Your task to perform on an android device: Open internet settings Image 0: 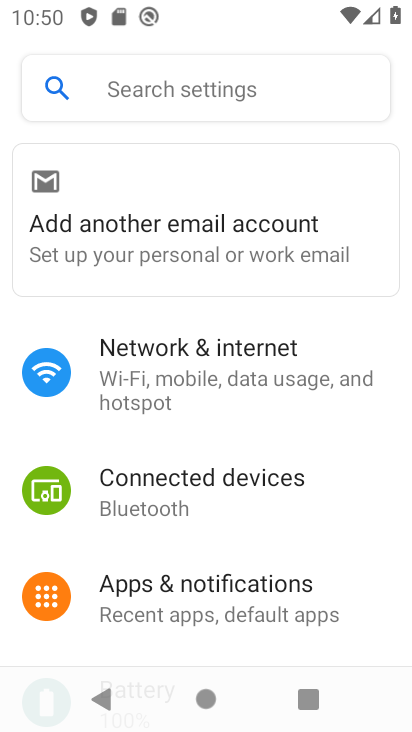
Step 0: click (295, 374)
Your task to perform on an android device: Open internet settings Image 1: 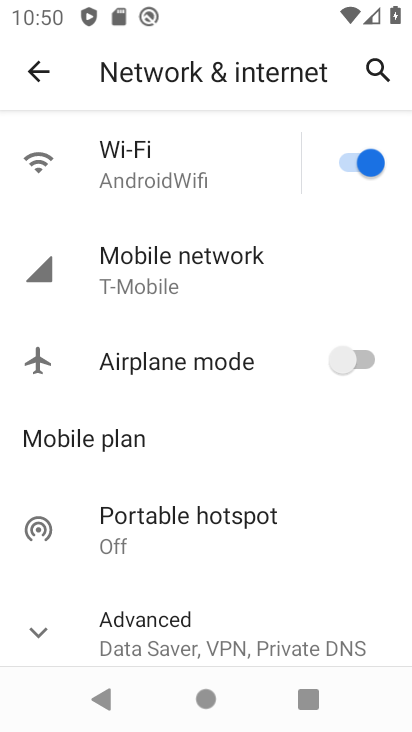
Step 1: click (168, 257)
Your task to perform on an android device: Open internet settings Image 2: 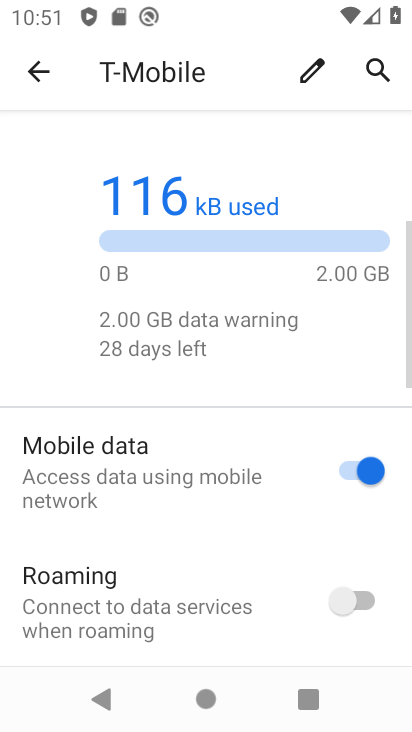
Step 2: drag from (283, 558) to (309, 373)
Your task to perform on an android device: Open internet settings Image 3: 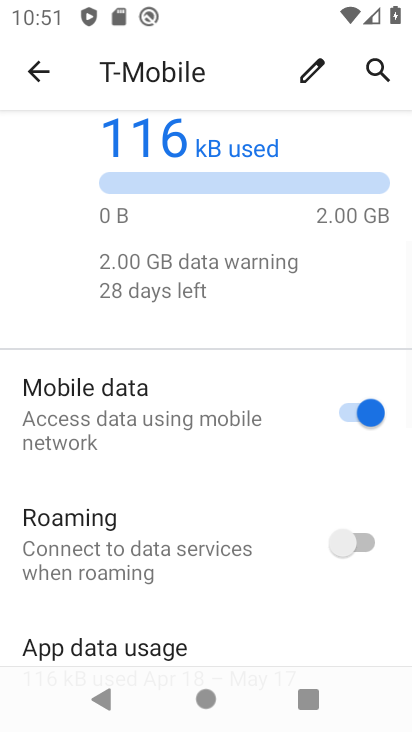
Step 3: drag from (244, 585) to (335, 239)
Your task to perform on an android device: Open internet settings Image 4: 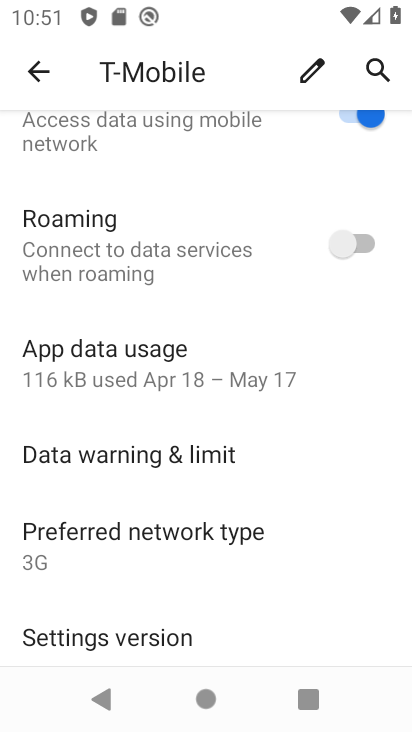
Step 4: drag from (226, 542) to (283, 306)
Your task to perform on an android device: Open internet settings Image 5: 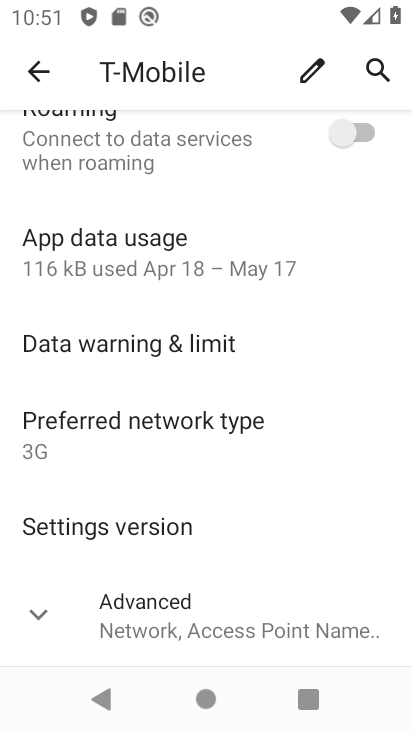
Step 5: click (136, 531)
Your task to perform on an android device: Open internet settings Image 6: 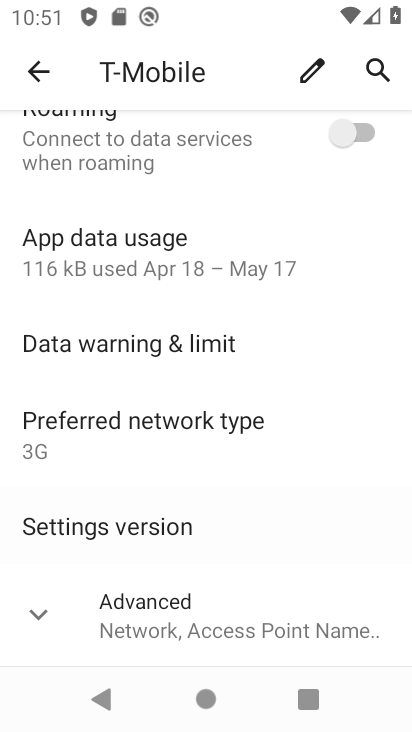
Step 6: click (155, 617)
Your task to perform on an android device: Open internet settings Image 7: 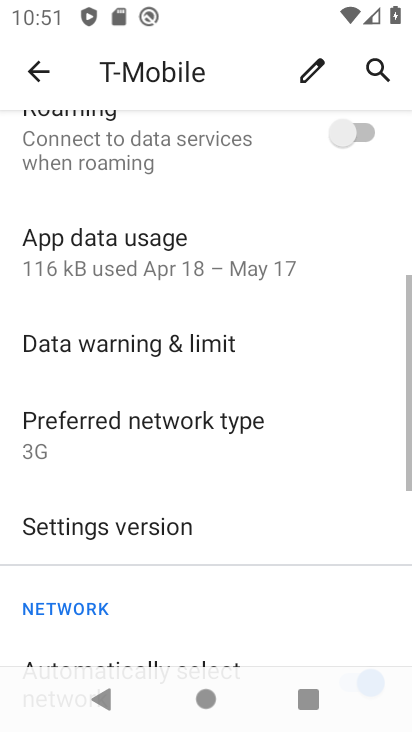
Step 7: drag from (190, 584) to (237, 302)
Your task to perform on an android device: Open internet settings Image 8: 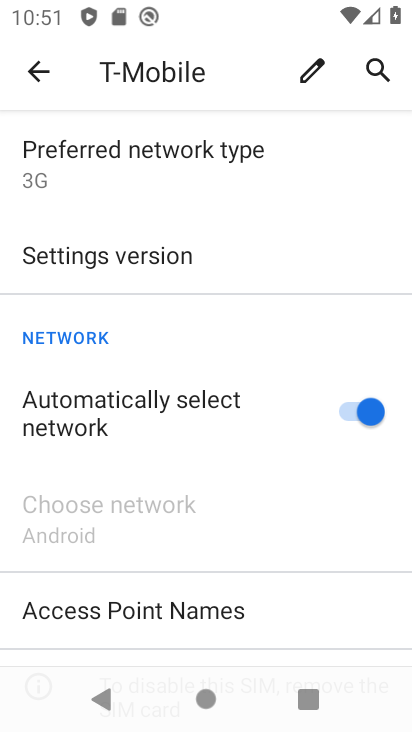
Step 8: drag from (257, 545) to (277, 328)
Your task to perform on an android device: Open internet settings Image 9: 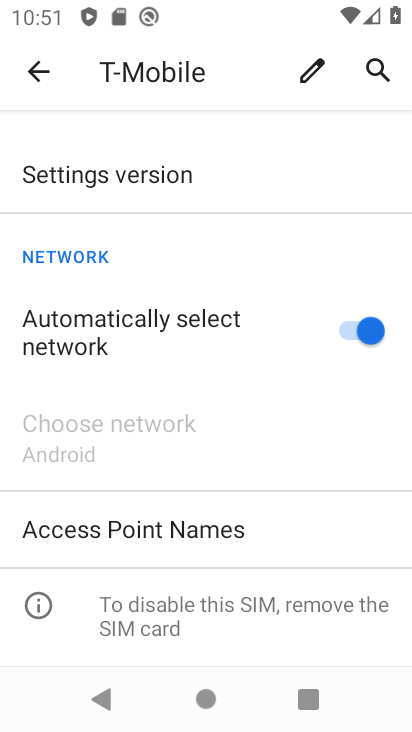
Step 9: click (242, 432)
Your task to perform on an android device: Open internet settings Image 10: 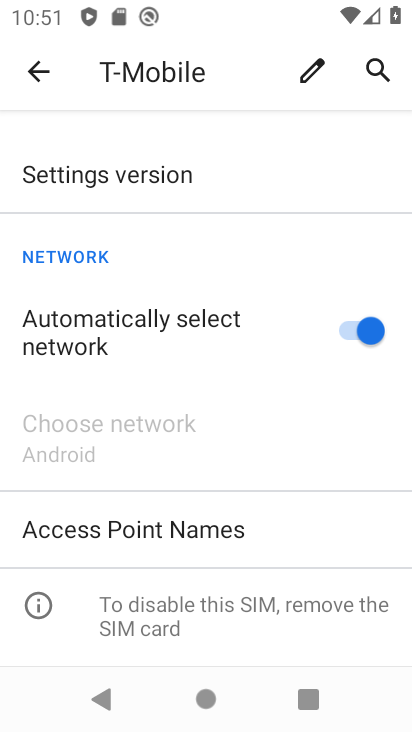
Step 10: task complete